Your task to perform on an android device: set default search engine in the chrome app Image 0: 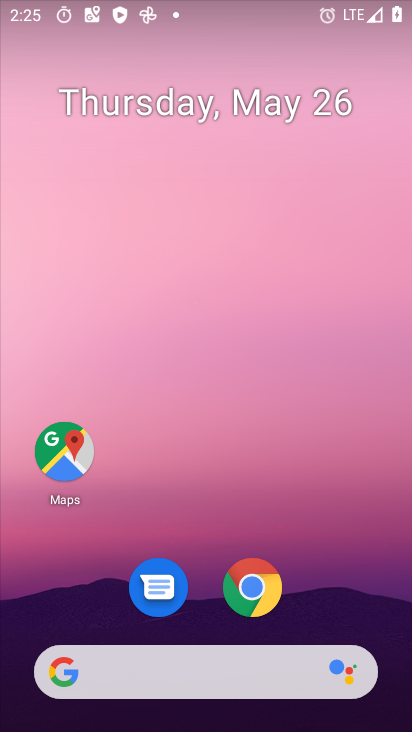
Step 0: drag from (350, 617) to (367, 160)
Your task to perform on an android device: set default search engine in the chrome app Image 1: 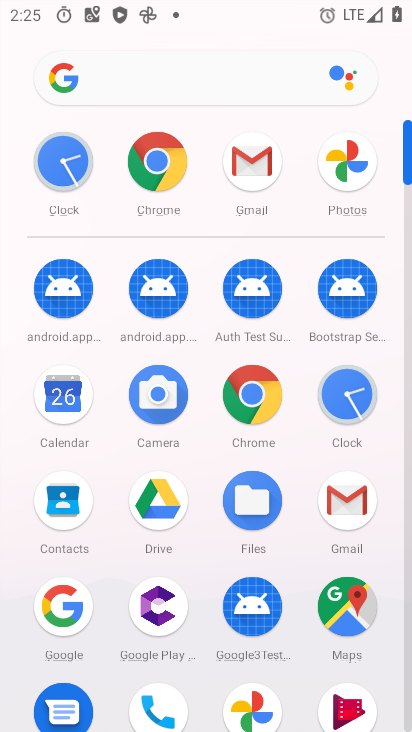
Step 1: click (264, 407)
Your task to perform on an android device: set default search engine in the chrome app Image 2: 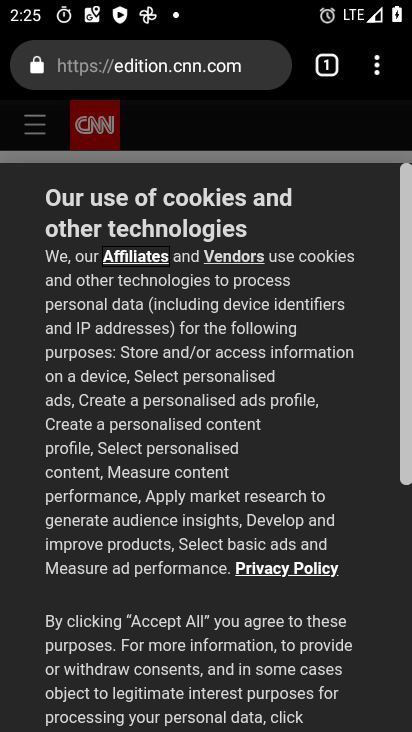
Step 2: click (376, 73)
Your task to perform on an android device: set default search engine in the chrome app Image 3: 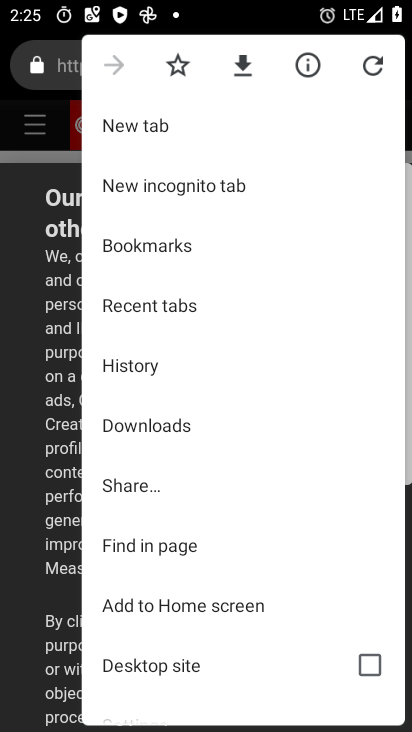
Step 3: drag from (312, 462) to (329, 389)
Your task to perform on an android device: set default search engine in the chrome app Image 4: 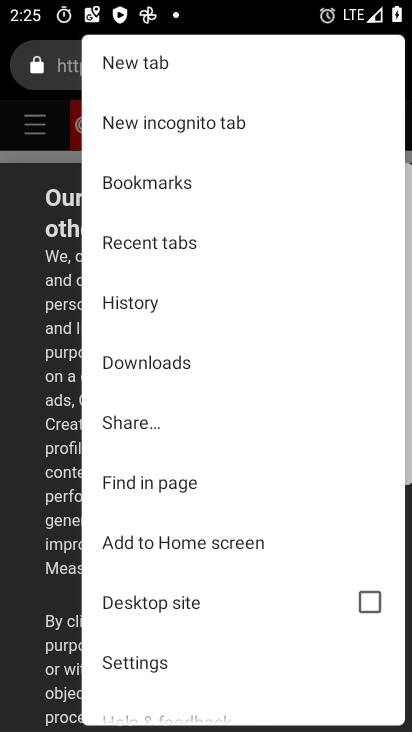
Step 4: drag from (312, 456) to (319, 385)
Your task to perform on an android device: set default search engine in the chrome app Image 5: 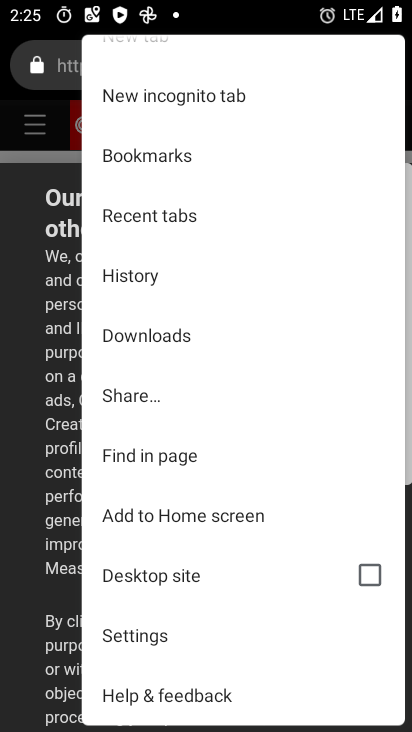
Step 5: drag from (297, 463) to (306, 385)
Your task to perform on an android device: set default search engine in the chrome app Image 6: 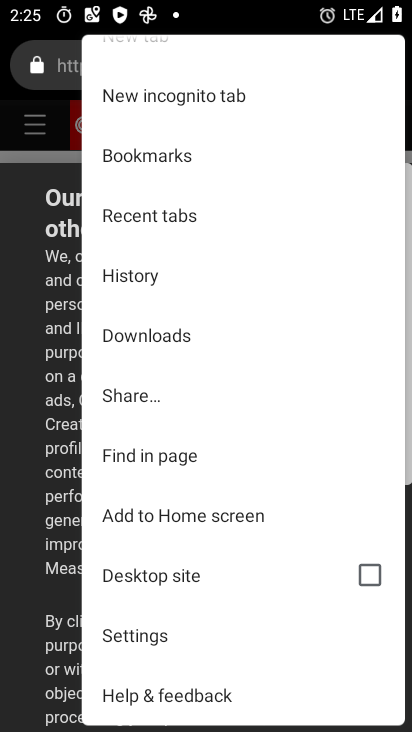
Step 6: click (252, 633)
Your task to perform on an android device: set default search engine in the chrome app Image 7: 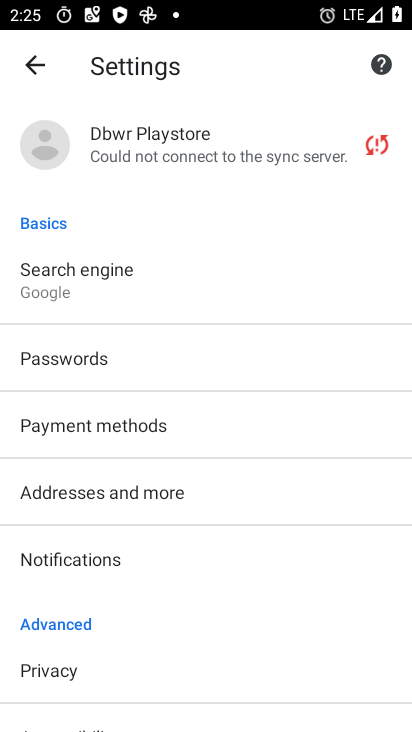
Step 7: drag from (324, 549) to (338, 464)
Your task to perform on an android device: set default search engine in the chrome app Image 8: 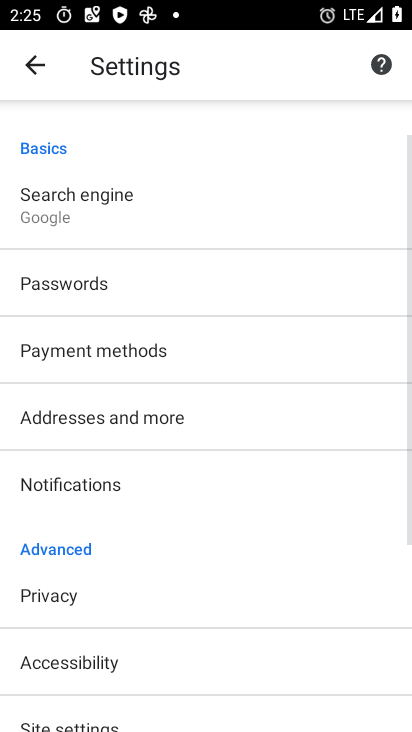
Step 8: drag from (334, 595) to (340, 513)
Your task to perform on an android device: set default search engine in the chrome app Image 9: 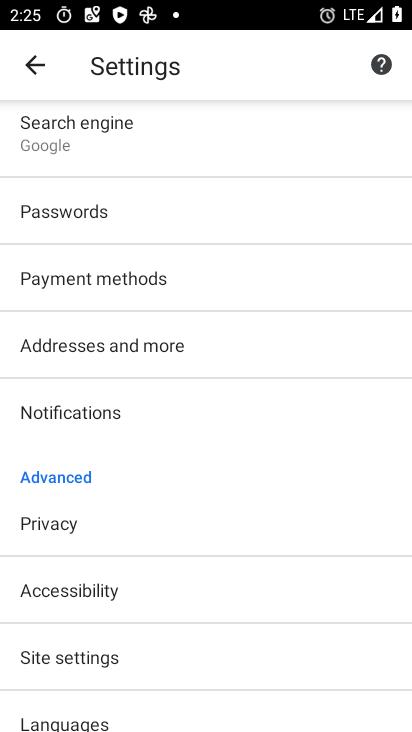
Step 9: drag from (332, 614) to (331, 532)
Your task to perform on an android device: set default search engine in the chrome app Image 10: 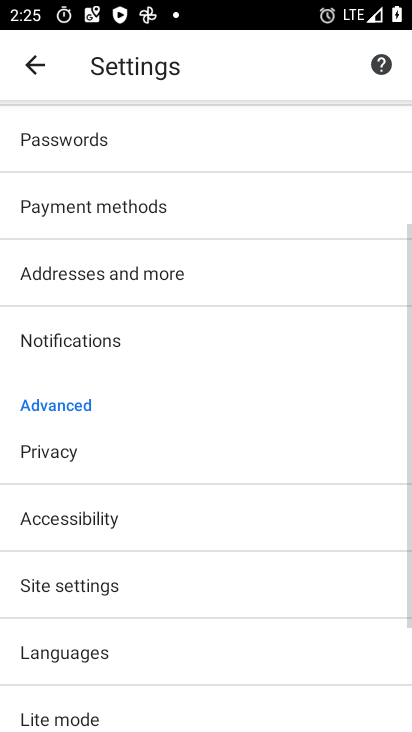
Step 10: drag from (316, 629) to (316, 570)
Your task to perform on an android device: set default search engine in the chrome app Image 11: 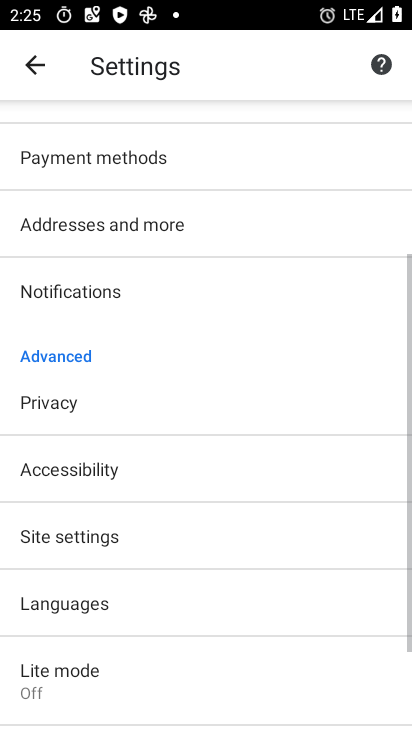
Step 11: drag from (309, 645) to (315, 570)
Your task to perform on an android device: set default search engine in the chrome app Image 12: 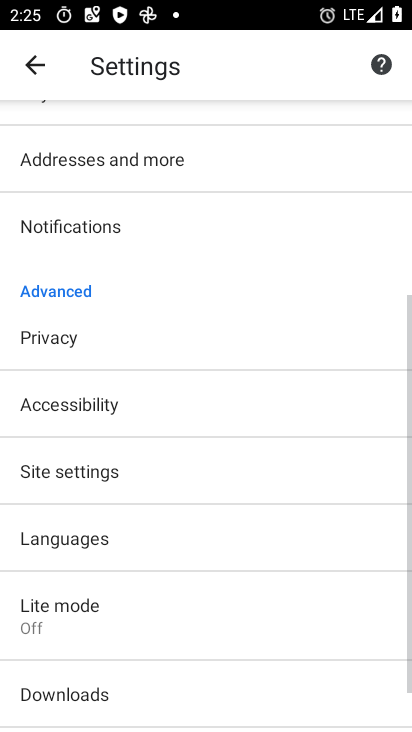
Step 12: drag from (308, 662) to (310, 551)
Your task to perform on an android device: set default search engine in the chrome app Image 13: 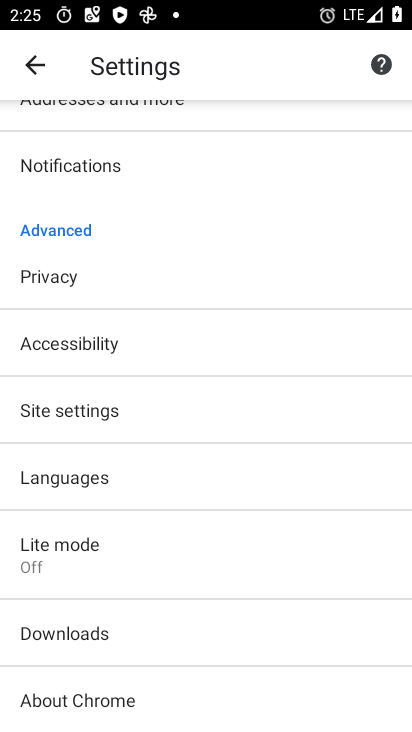
Step 13: drag from (306, 620) to (316, 503)
Your task to perform on an android device: set default search engine in the chrome app Image 14: 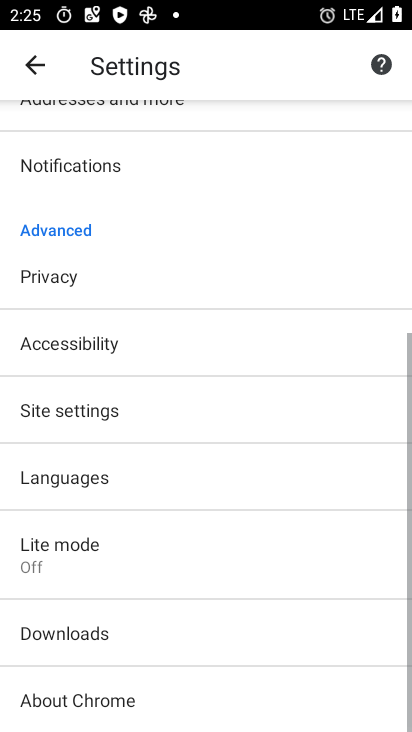
Step 14: drag from (301, 391) to (293, 468)
Your task to perform on an android device: set default search engine in the chrome app Image 15: 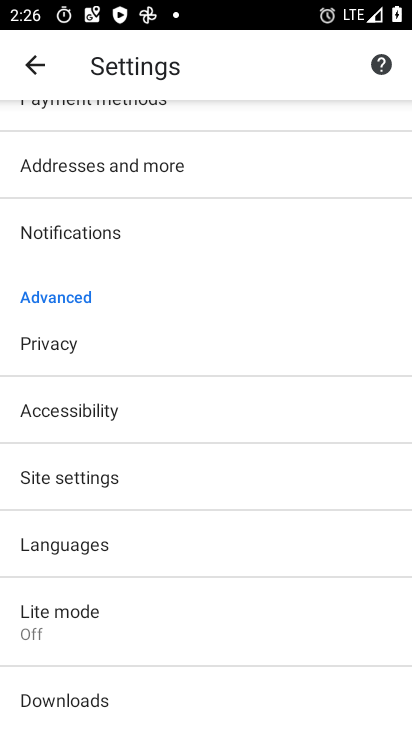
Step 15: drag from (290, 353) to (274, 436)
Your task to perform on an android device: set default search engine in the chrome app Image 16: 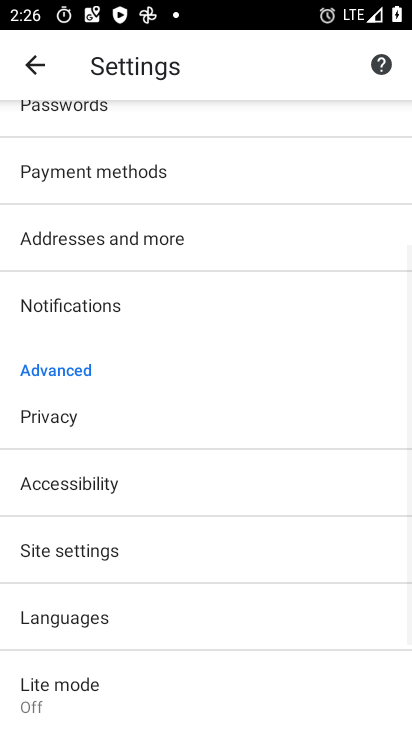
Step 16: drag from (277, 363) to (272, 445)
Your task to perform on an android device: set default search engine in the chrome app Image 17: 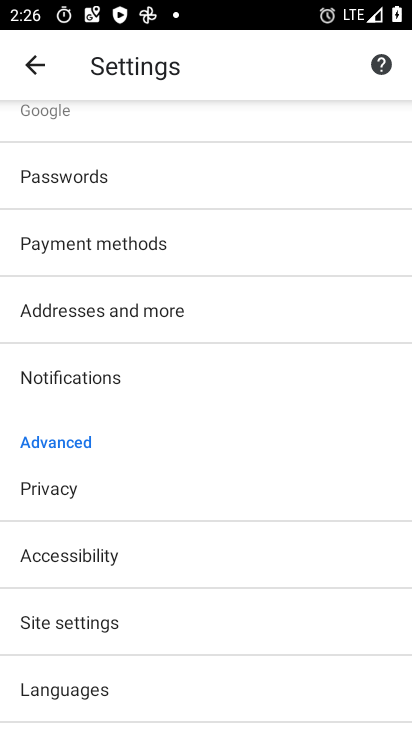
Step 17: drag from (276, 337) to (267, 422)
Your task to perform on an android device: set default search engine in the chrome app Image 18: 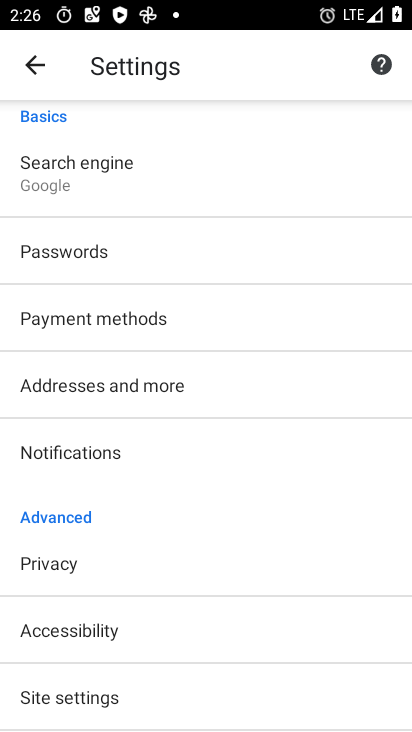
Step 18: drag from (275, 324) to (279, 427)
Your task to perform on an android device: set default search engine in the chrome app Image 19: 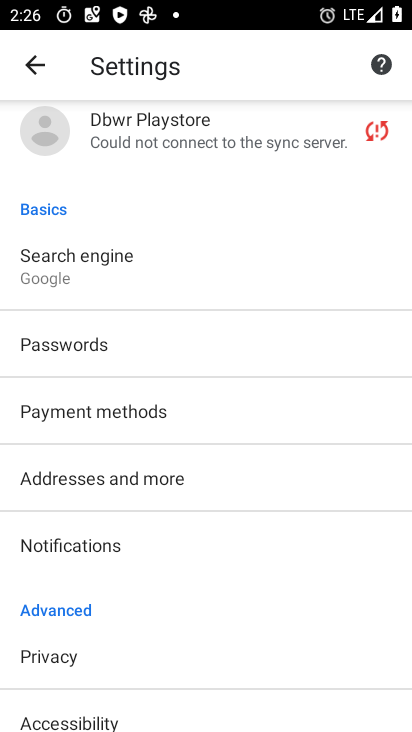
Step 19: drag from (269, 324) to (251, 429)
Your task to perform on an android device: set default search engine in the chrome app Image 20: 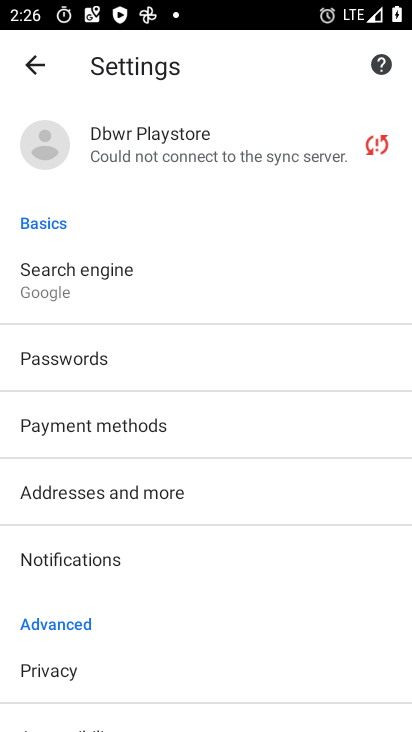
Step 20: click (137, 315)
Your task to perform on an android device: set default search engine in the chrome app Image 21: 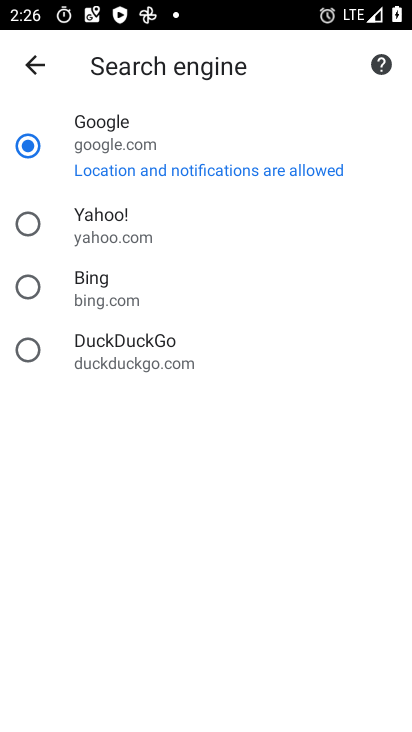
Step 21: click (136, 309)
Your task to perform on an android device: set default search engine in the chrome app Image 22: 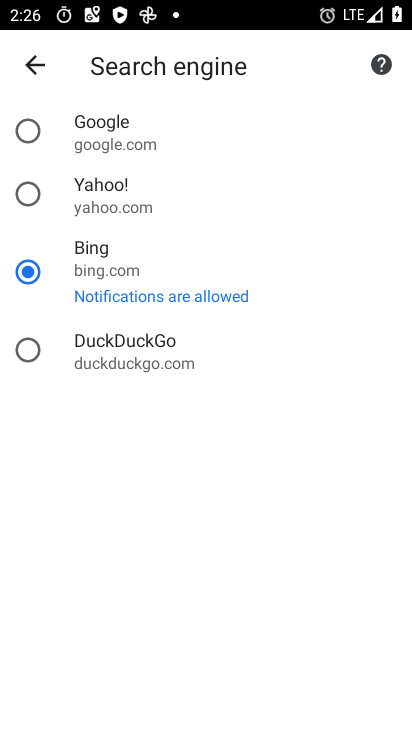
Step 22: task complete